Your task to perform on an android device: Go to Yahoo.com Image 0: 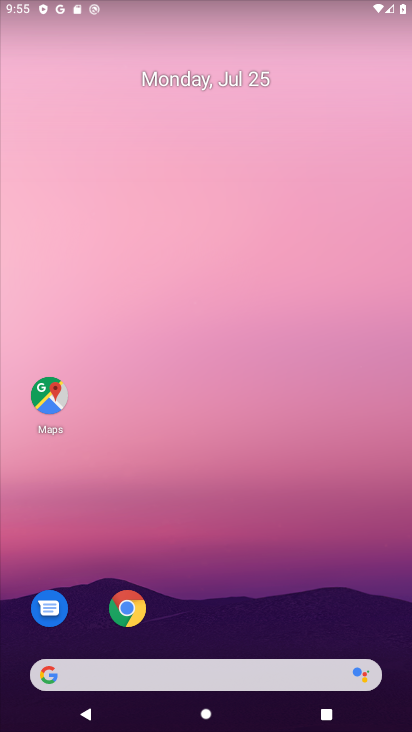
Step 0: drag from (142, 675) to (142, 95)
Your task to perform on an android device: Go to Yahoo.com Image 1: 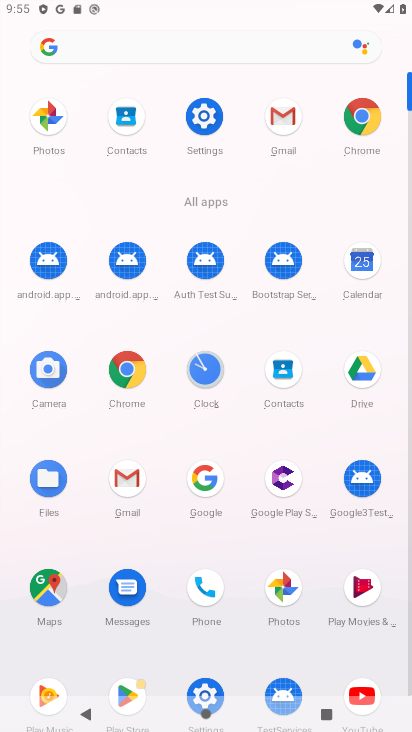
Step 1: click (353, 142)
Your task to perform on an android device: Go to Yahoo.com Image 2: 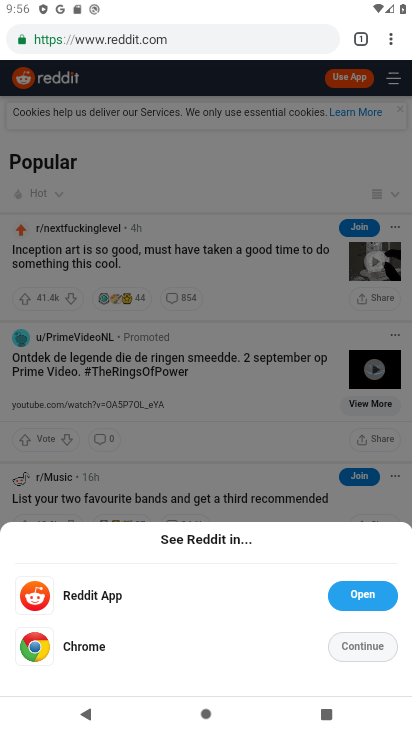
Step 2: click (267, 35)
Your task to perform on an android device: Go to Yahoo.com Image 3: 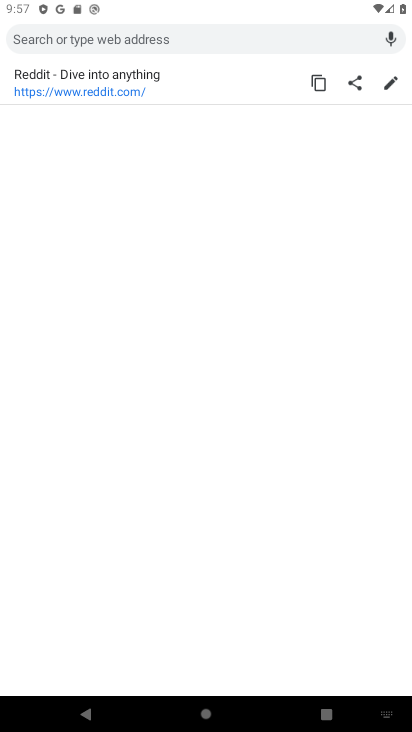
Step 3: type "yahoo"
Your task to perform on an android device: Go to Yahoo.com Image 4: 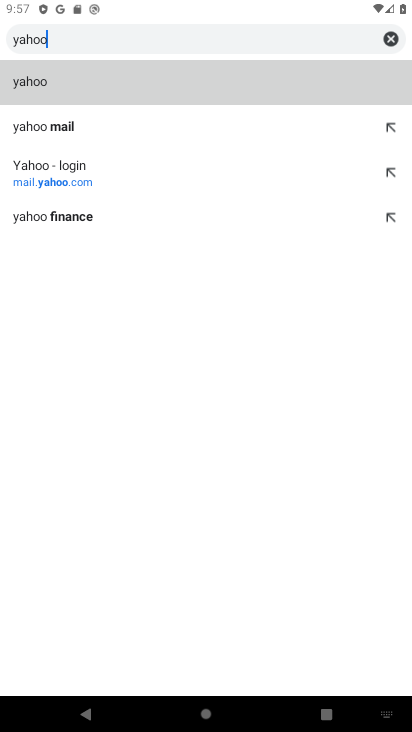
Step 4: click (101, 176)
Your task to perform on an android device: Go to Yahoo.com Image 5: 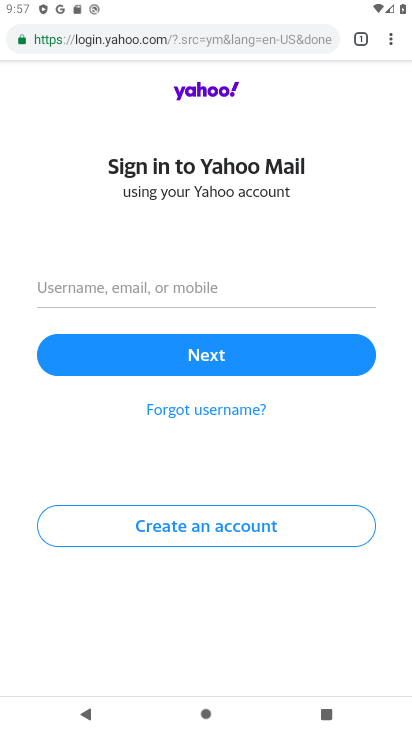
Step 5: task complete